Your task to perform on an android device: Clear the cart on ebay.com. Image 0: 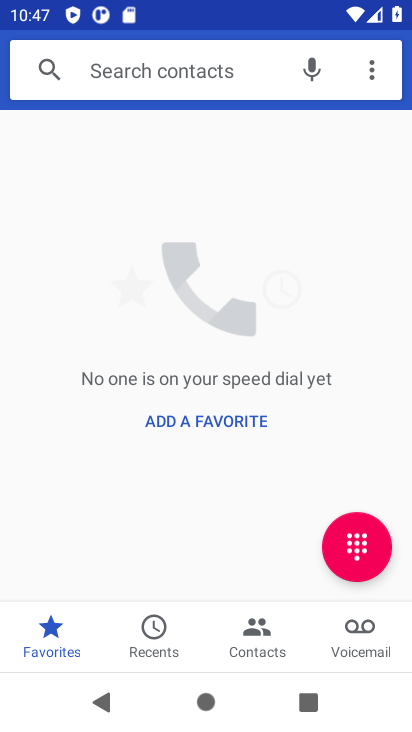
Step 0: click (253, 535)
Your task to perform on an android device: Clear the cart on ebay.com. Image 1: 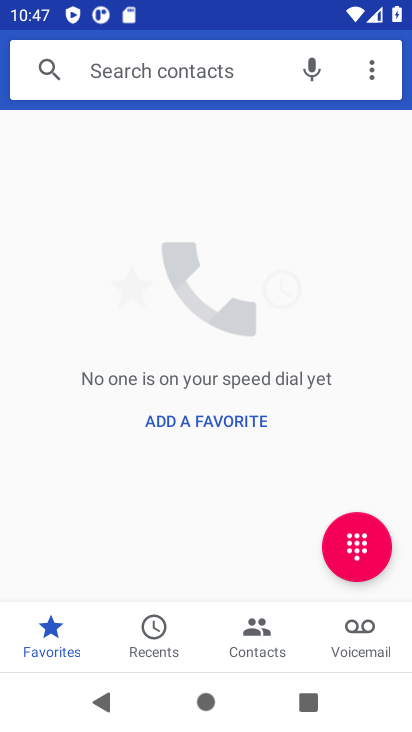
Step 1: press home button
Your task to perform on an android device: Clear the cart on ebay.com. Image 2: 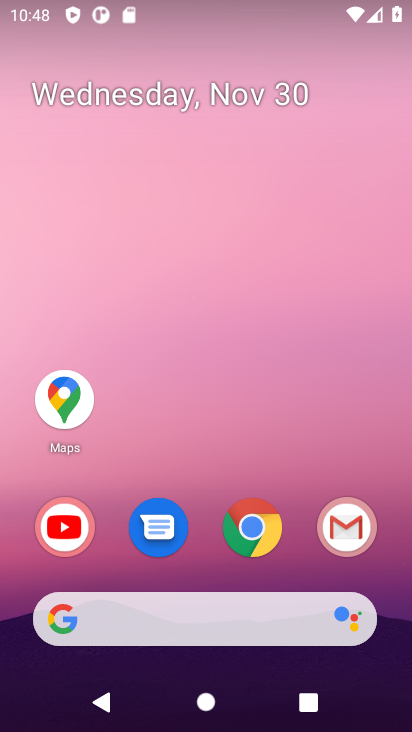
Step 2: click (249, 525)
Your task to perform on an android device: Clear the cart on ebay.com. Image 3: 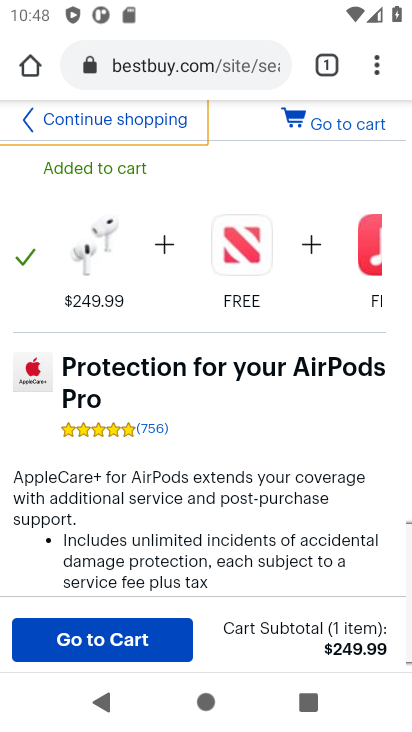
Step 3: click (186, 58)
Your task to perform on an android device: Clear the cart on ebay.com. Image 4: 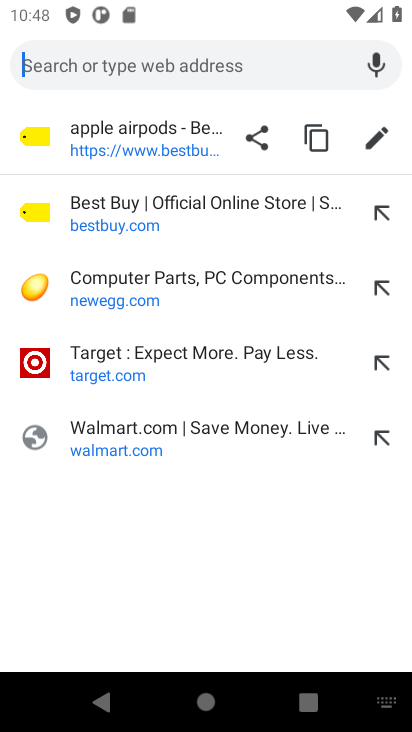
Step 4: type "ebay.com"
Your task to perform on an android device: Clear the cart on ebay.com. Image 5: 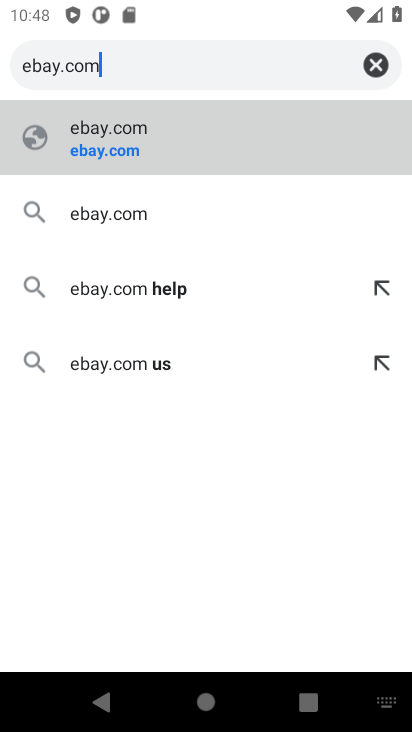
Step 5: click (91, 145)
Your task to perform on an android device: Clear the cart on ebay.com. Image 6: 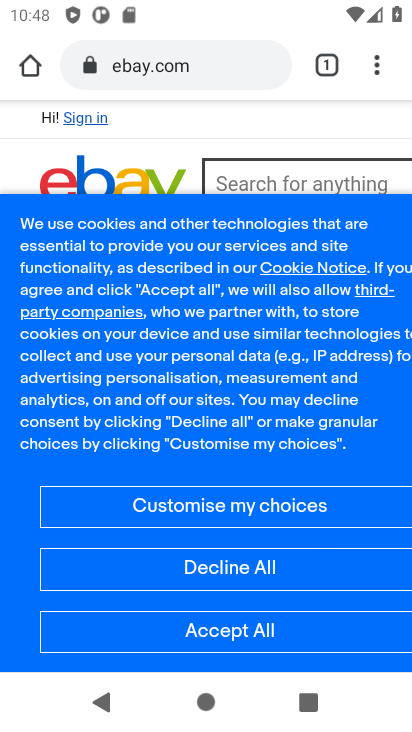
Step 6: click (211, 634)
Your task to perform on an android device: Clear the cart on ebay.com. Image 7: 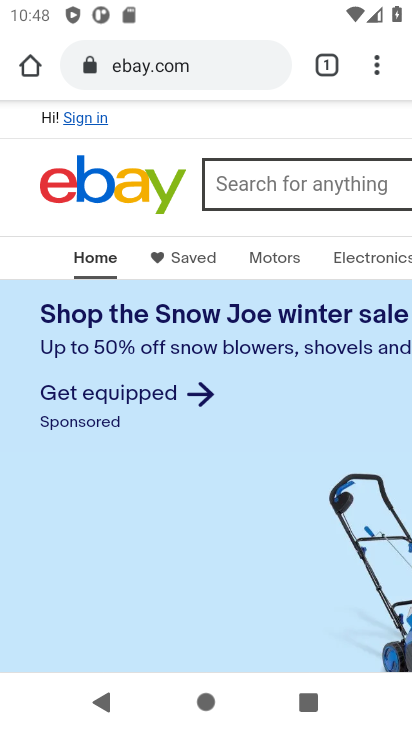
Step 7: drag from (228, 223) to (7, 192)
Your task to perform on an android device: Clear the cart on ebay.com. Image 8: 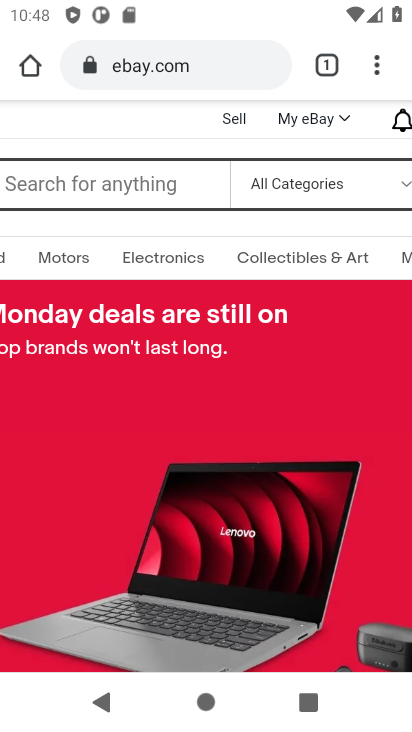
Step 8: drag from (301, 149) to (4, 131)
Your task to perform on an android device: Clear the cart on ebay.com. Image 9: 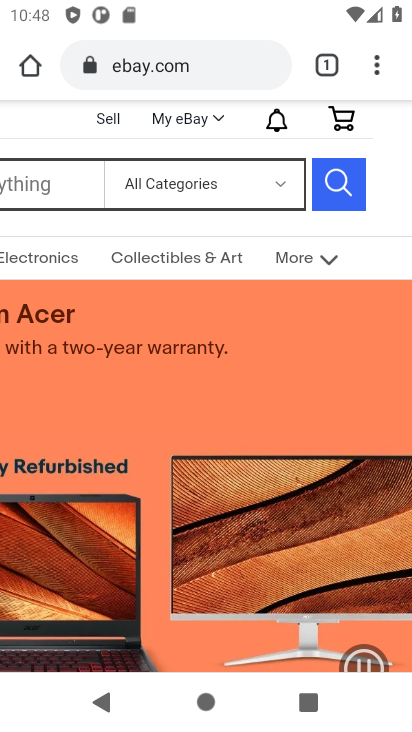
Step 9: click (345, 123)
Your task to perform on an android device: Clear the cart on ebay.com. Image 10: 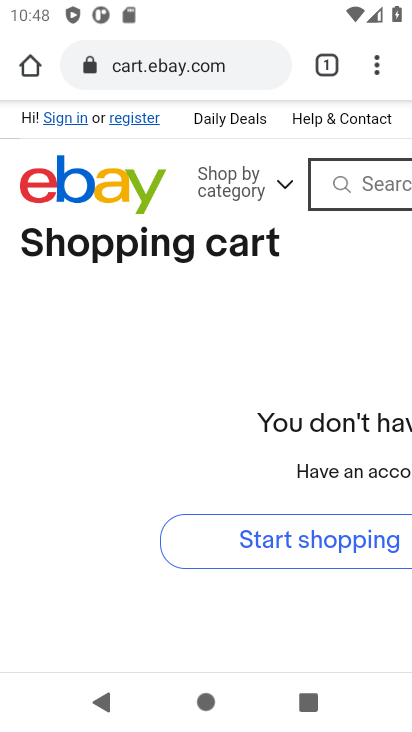
Step 10: task complete